Your task to perform on an android device: What's the weather going to be tomorrow? Image 0: 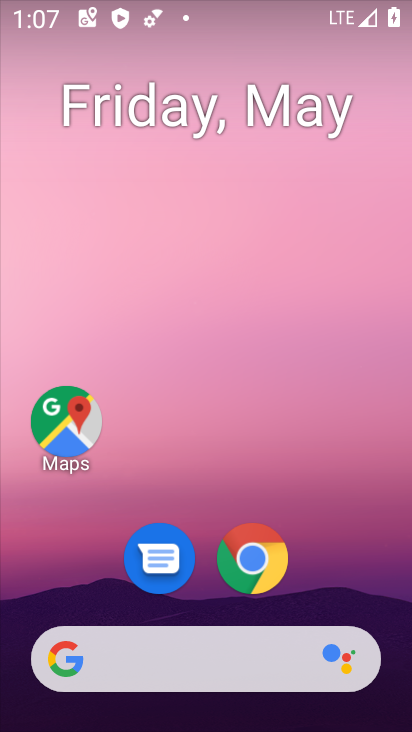
Step 0: click (274, 561)
Your task to perform on an android device: What's the weather going to be tomorrow? Image 1: 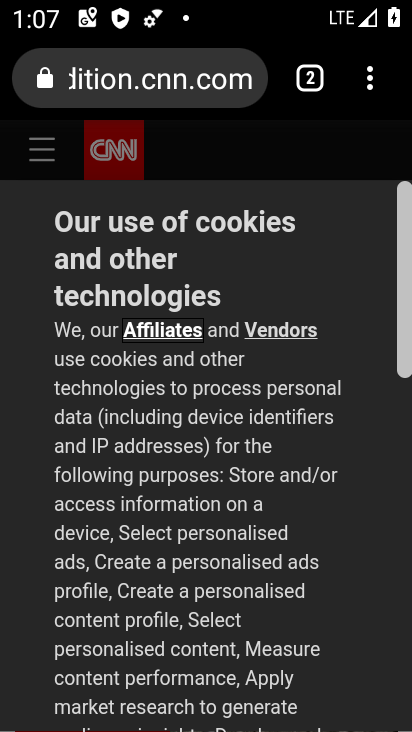
Step 1: click (230, 88)
Your task to perform on an android device: What's the weather going to be tomorrow? Image 2: 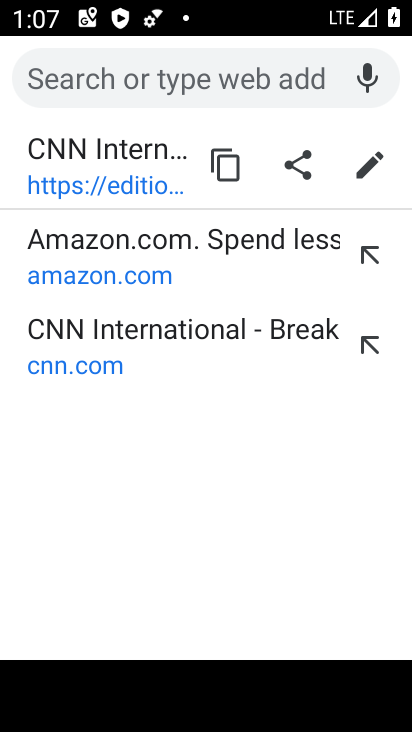
Step 2: type "What's the weather going to be tomorrow?"
Your task to perform on an android device: What's the weather going to be tomorrow? Image 3: 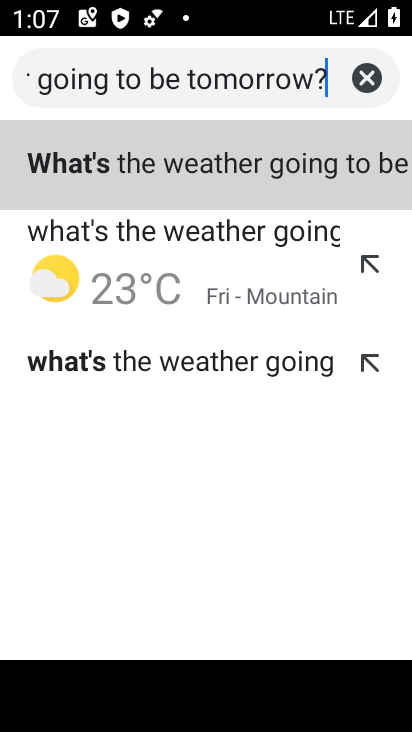
Step 3: click (312, 167)
Your task to perform on an android device: What's the weather going to be tomorrow? Image 4: 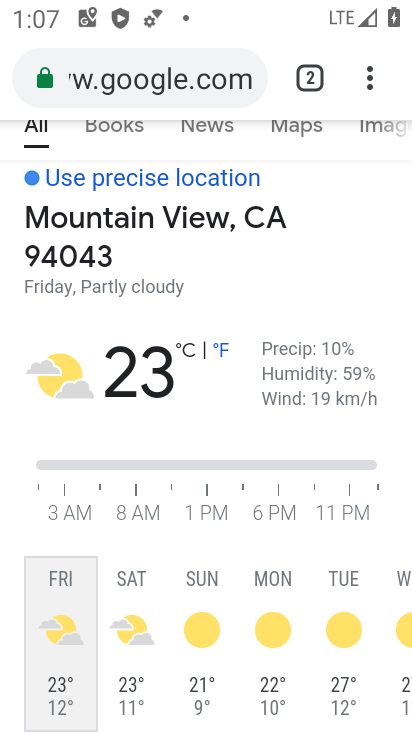
Step 4: click (138, 583)
Your task to perform on an android device: What's the weather going to be tomorrow? Image 5: 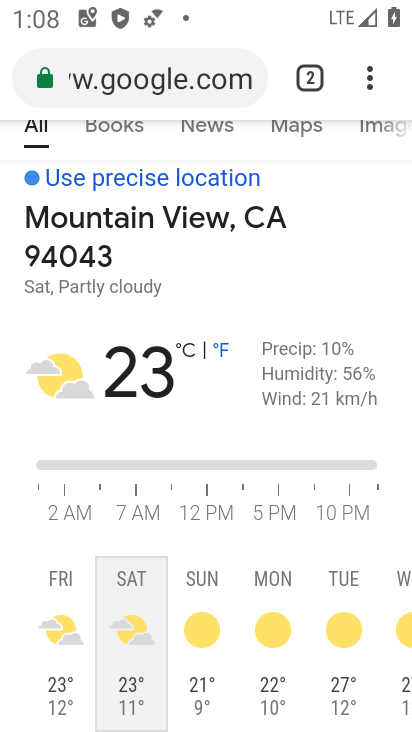
Step 5: task complete